Your task to perform on an android device: turn pop-ups off in chrome Image 0: 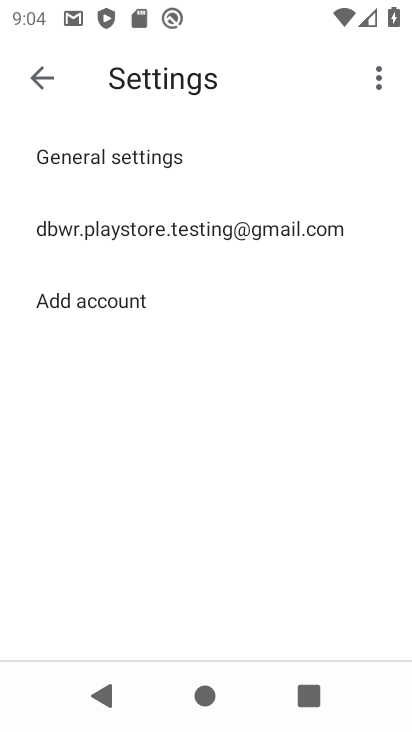
Step 0: press home button
Your task to perform on an android device: turn pop-ups off in chrome Image 1: 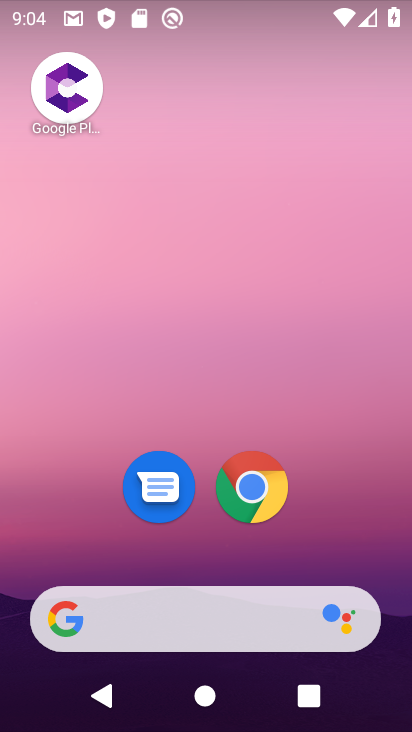
Step 1: click (264, 485)
Your task to perform on an android device: turn pop-ups off in chrome Image 2: 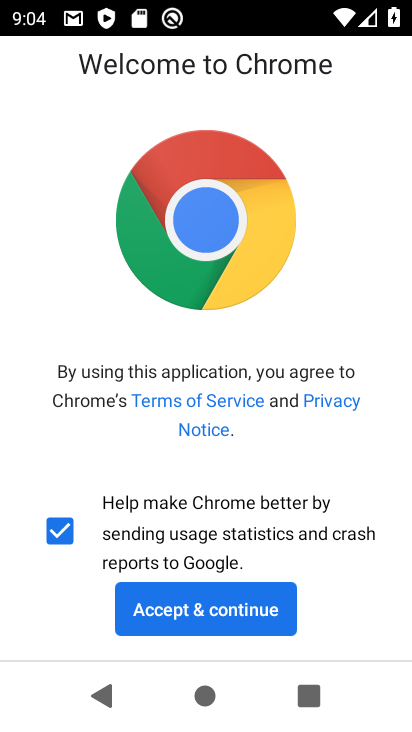
Step 2: click (249, 607)
Your task to perform on an android device: turn pop-ups off in chrome Image 3: 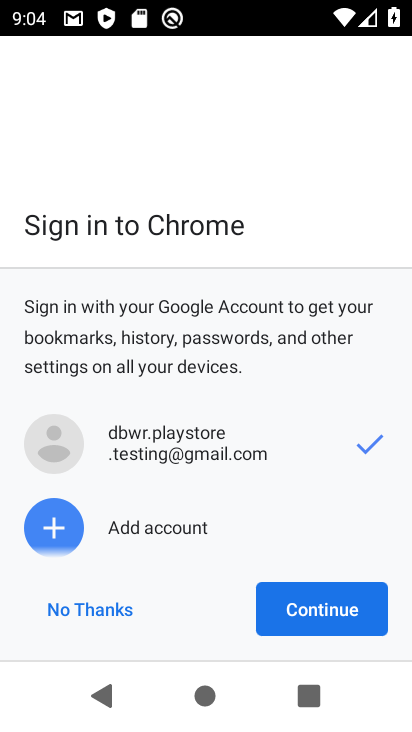
Step 3: click (273, 607)
Your task to perform on an android device: turn pop-ups off in chrome Image 4: 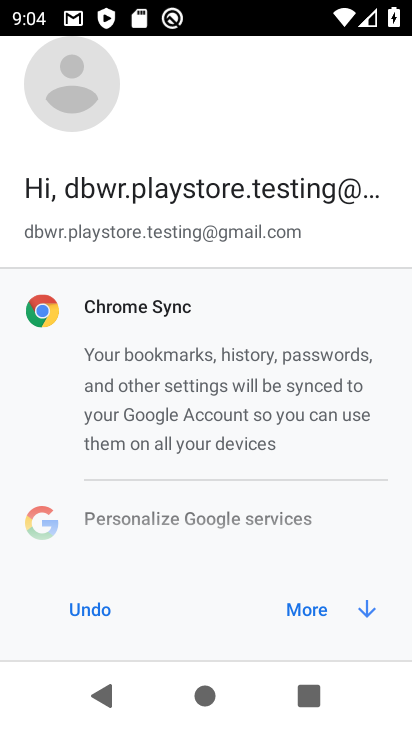
Step 4: click (297, 607)
Your task to perform on an android device: turn pop-ups off in chrome Image 5: 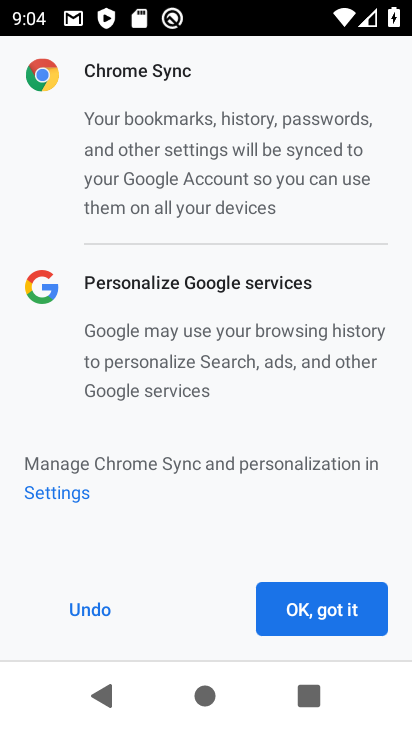
Step 5: click (297, 607)
Your task to perform on an android device: turn pop-ups off in chrome Image 6: 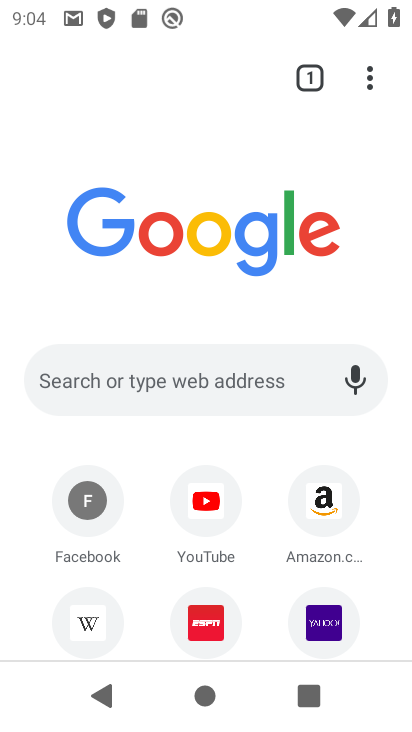
Step 6: click (369, 84)
Your task to perform on an android device: turn pop-ups off in chrome Image 7: 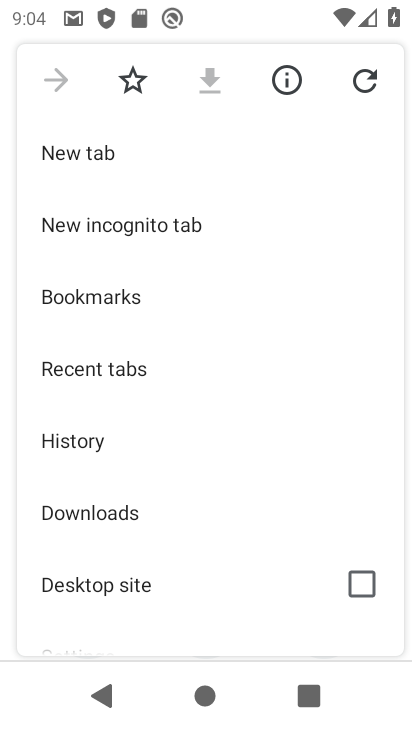
Step 7: drag from (225, 511) to (236, 235)
Your task to perform on an android device: turn pop-ups off in chrome Image 8: 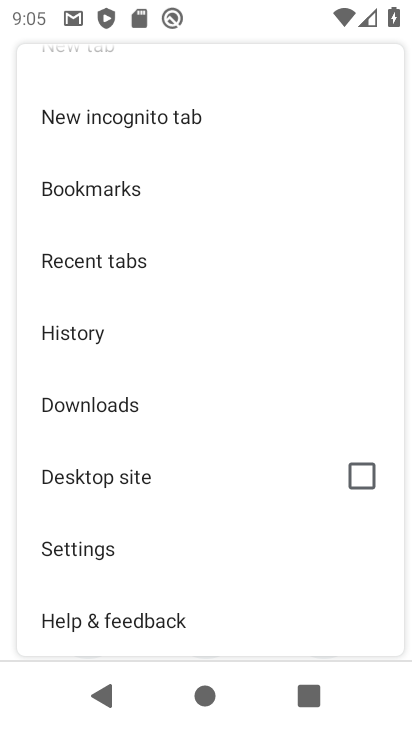
Step 8: click (121, 539)
Your task to perform on an android device: turn pop-ups off in chrome Image 9: 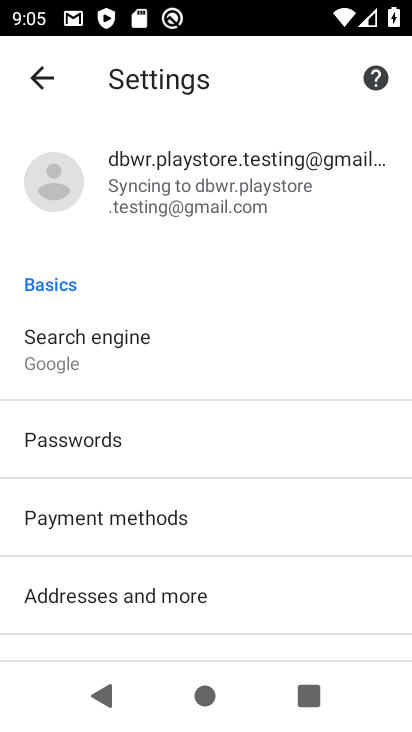
Step 9: drag from (121, 539) to (151, 315)
Your task to perform on an android device: turn pop-ups off in chrome Image 10: 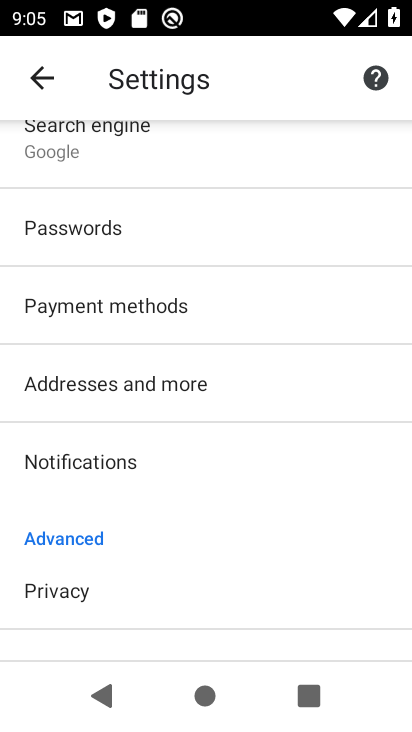
Step 10: drag from (155, 629) to (171, 267)
Your task to perform on an android device: turn pop-ups off in chrome Image 11: 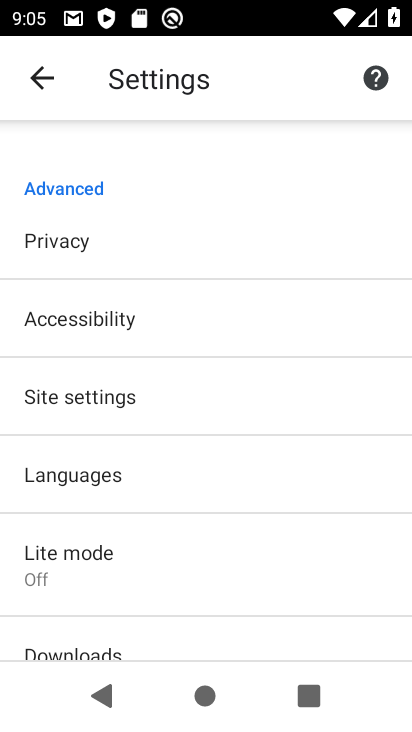
Step 11: click (164, 390)
Your task to perform on an android device: turn pop-ups off in chrome Image 12: 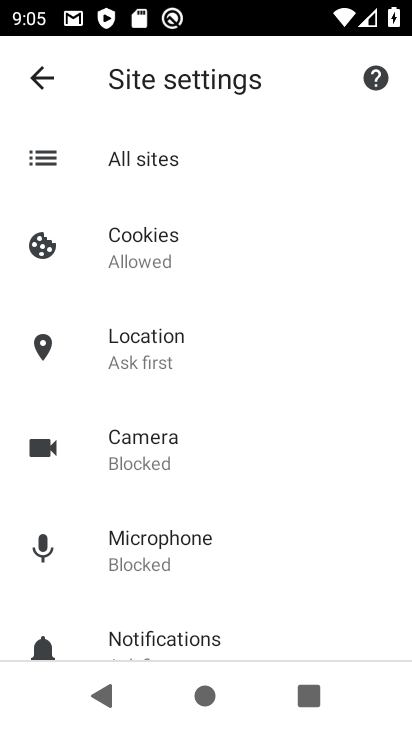
Step 12: drag from (221, 554) to (223, 178)
Your task to perform on an android device: turn pop-ups off in chrome Image 13: 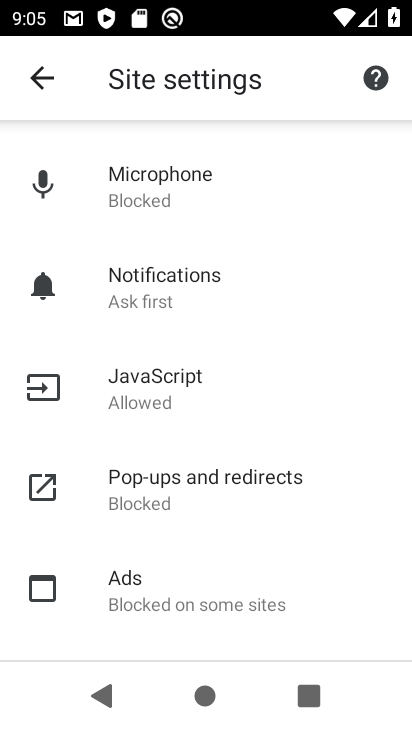
Step 13: click (209, 480)
Your task to perform on an android device: turn pop-ups off in chrome Image 14: 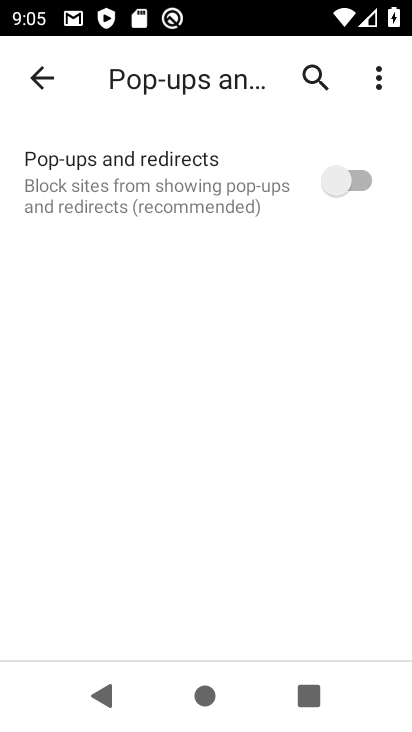
Step 14: click (352, 176)
Your task to perform on an android device: turn pop-ups off in chrome Image 15: 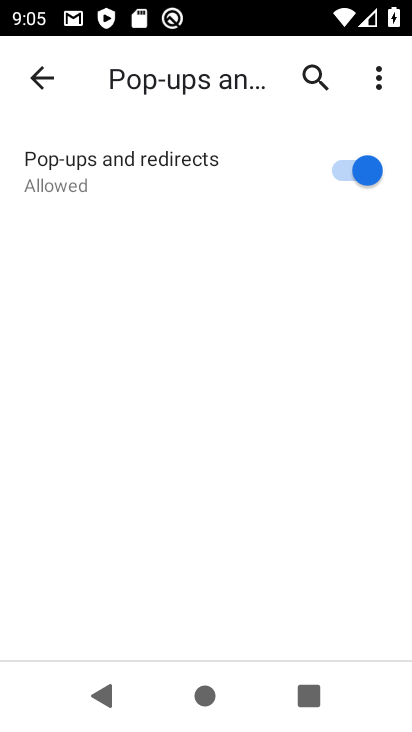
Step 15: task complete